Your task to perform on an android device: open app "Google Chrome" (install if not already installed) Image 0: 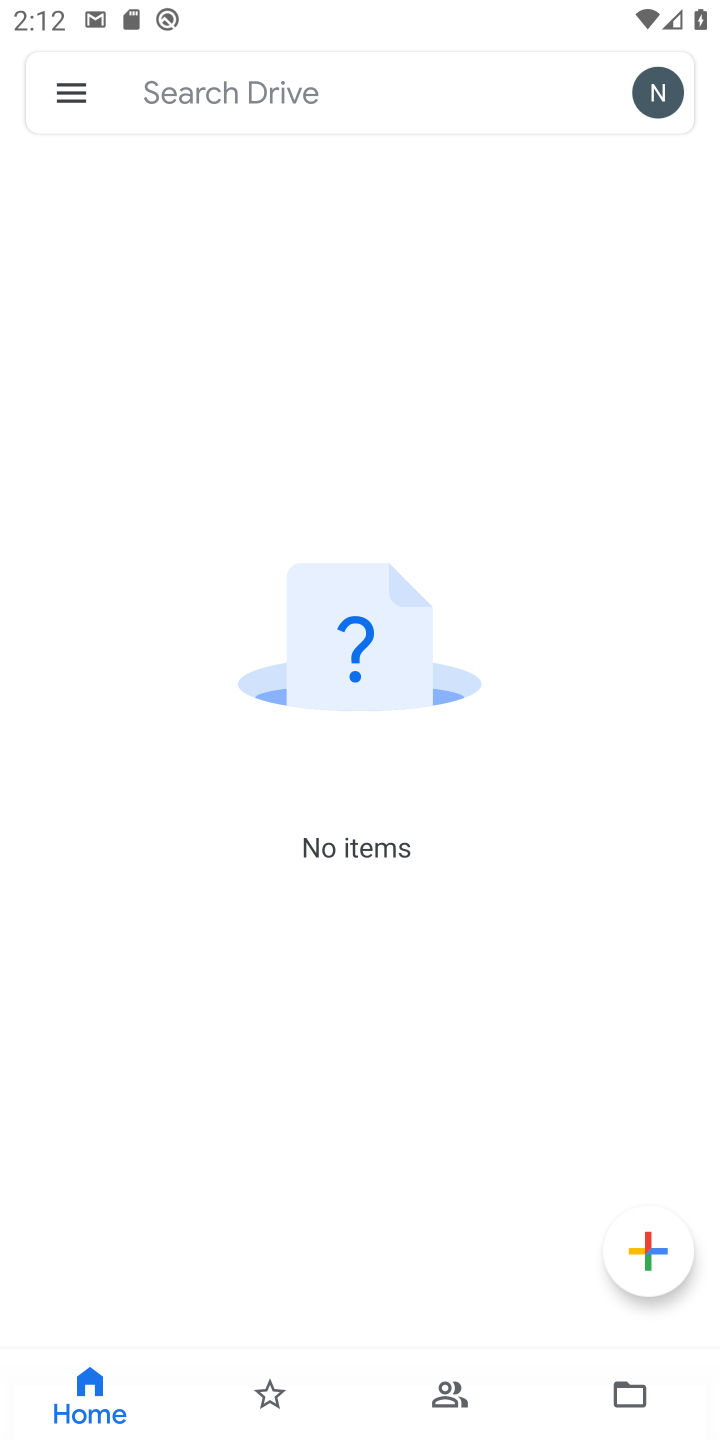
Step 0: press back button
Your task to perform on an android device: open app "Google Chrome" (install if not already installed) Image 1: 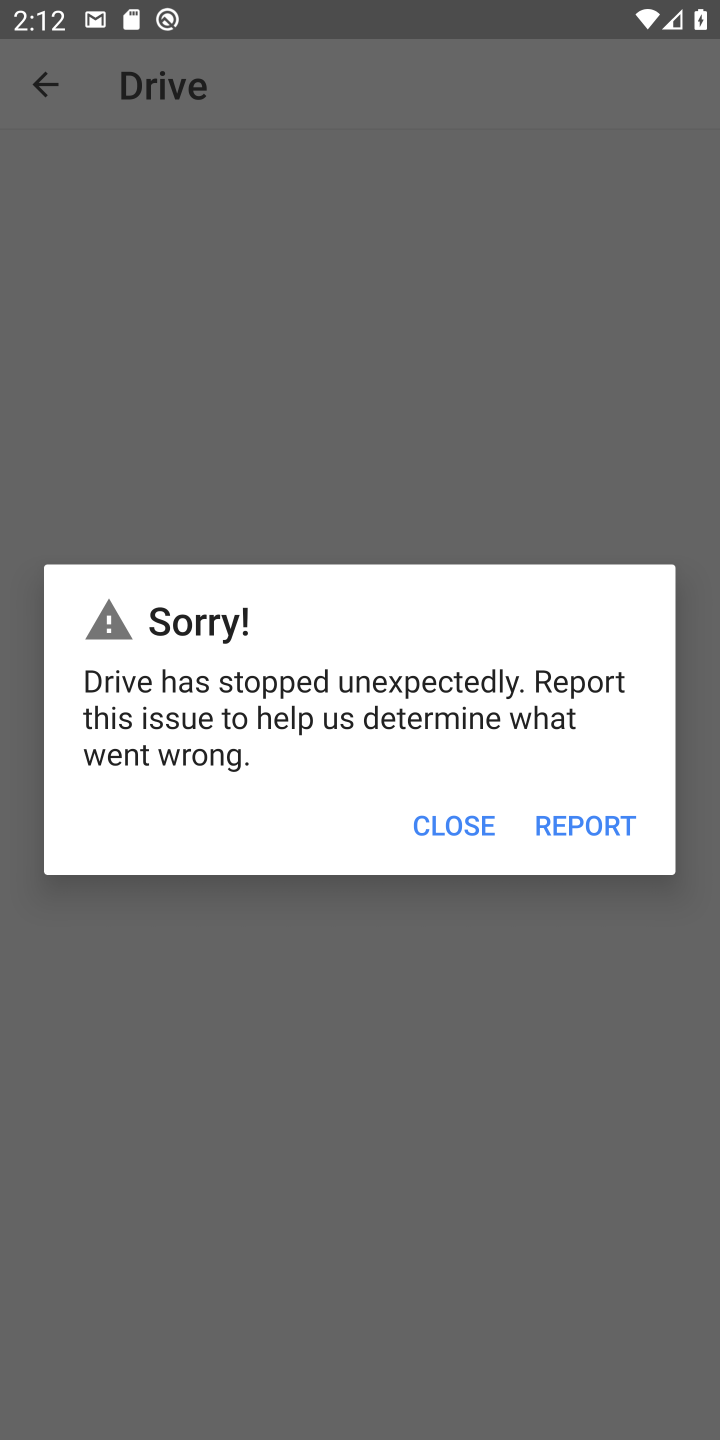
Step 1: press home button
Your task to perform on an android device: open app "Google Chrome" (install if not already installed) Image 2: 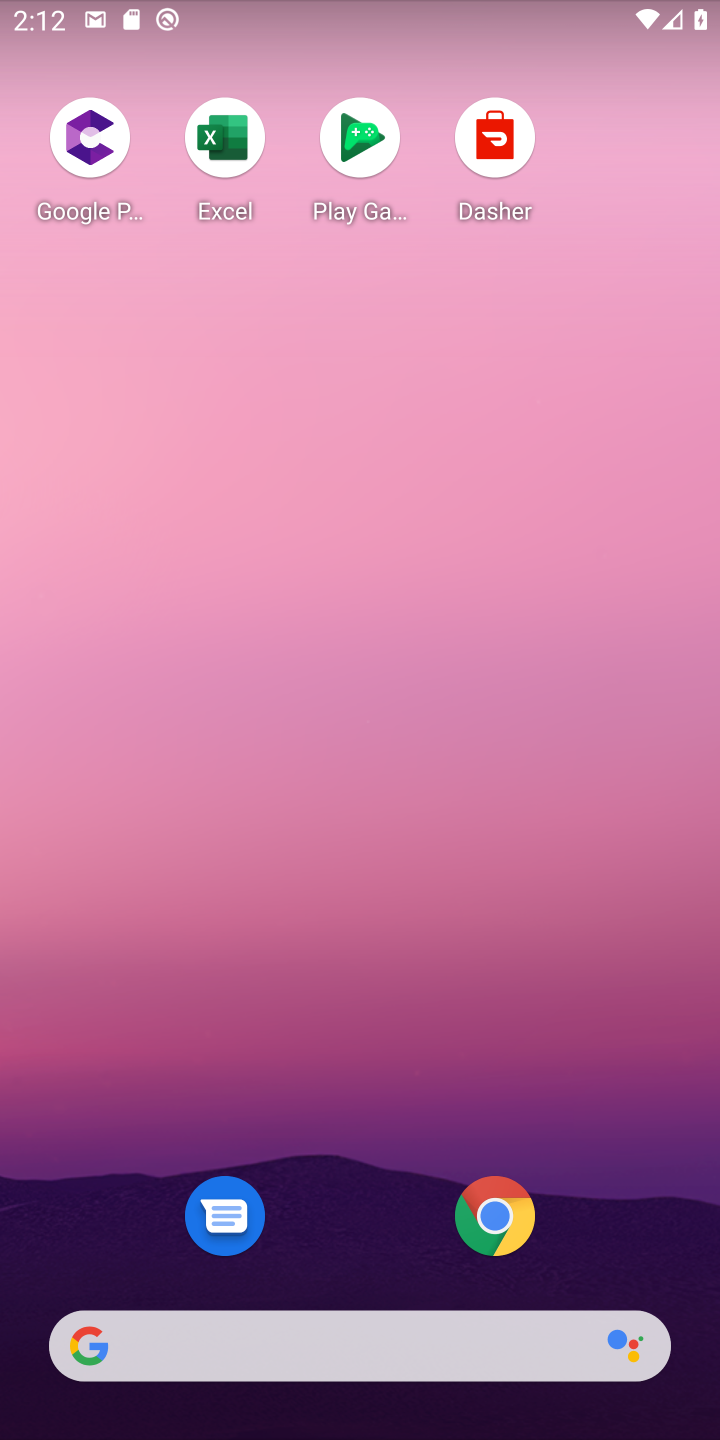
Step 2: click (487, 1222)
Your task to perform on an android device: open app "Google Chrome" (install if not already installed) Image 3: 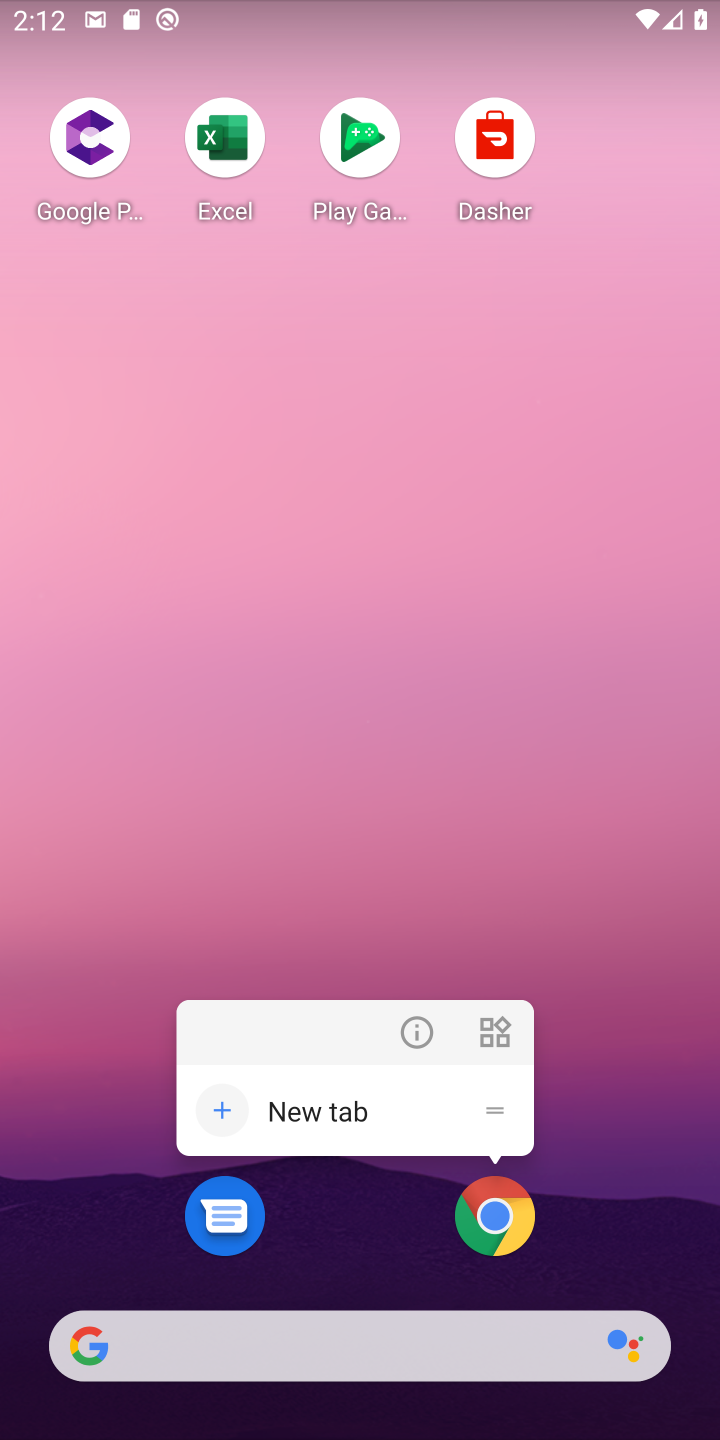
Step 3: click (494, 1225)
Your task to perform on an android device: open app "Google Chrome" (install if not already installed) Image 4: 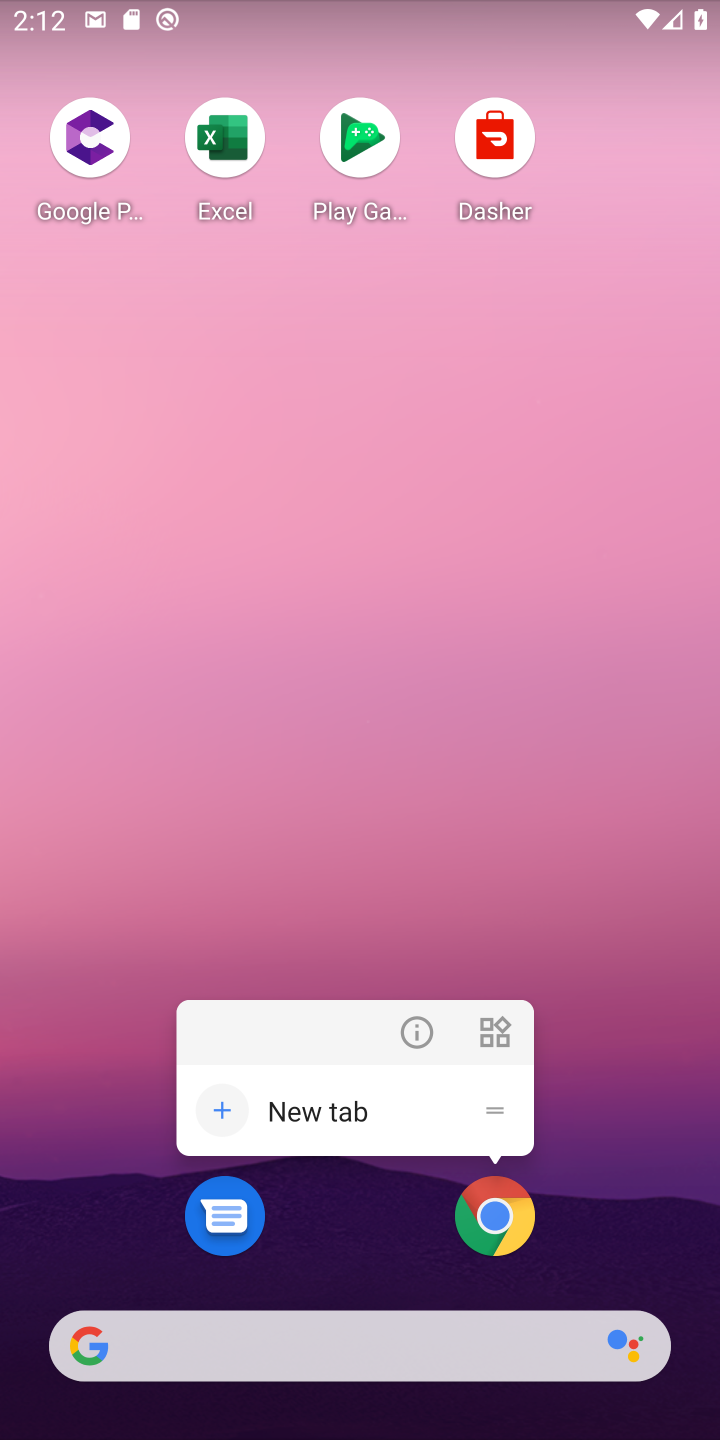
Step 4: click (482, 1251)
Your task to perform on an android device: open app "Google Chrome" (install if not already installed) Image 5: 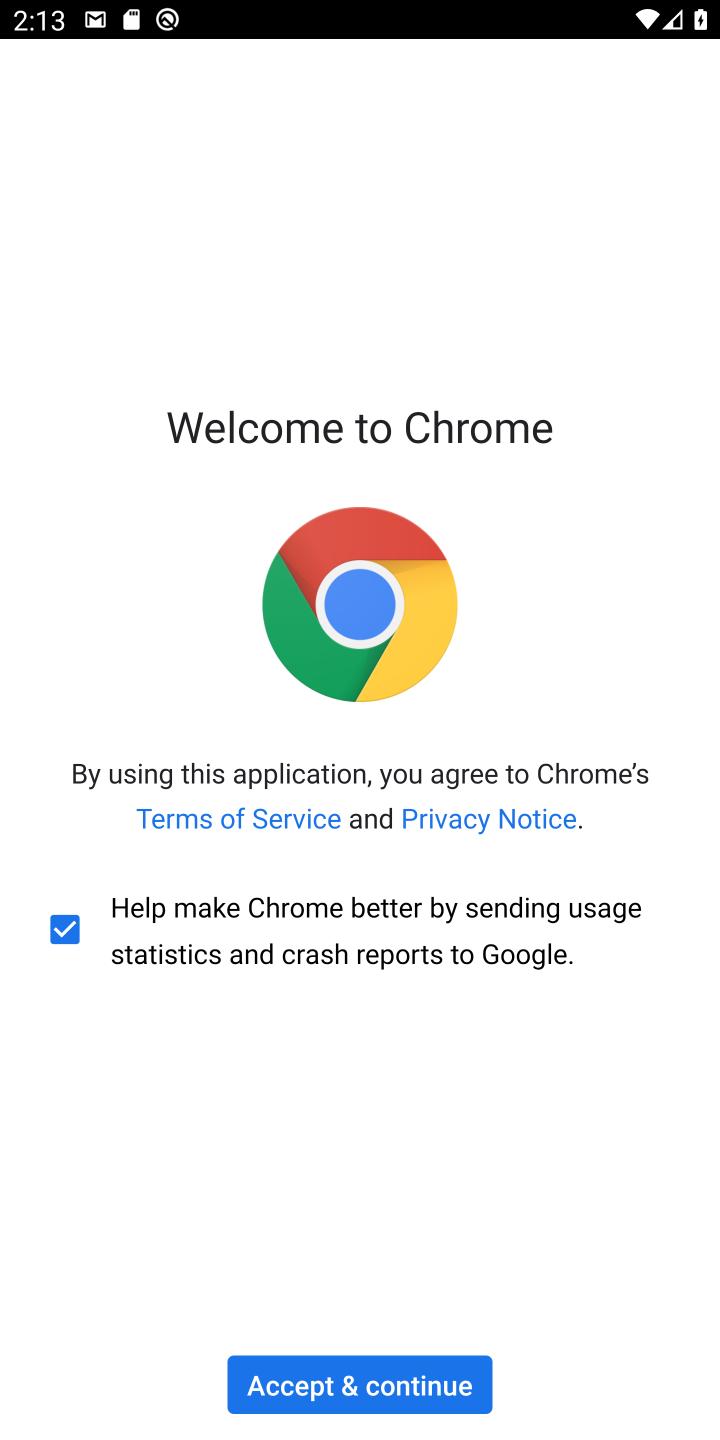
Step 5: click (341, 1381)
Your task to perform on an android device: open app "Google Chrome" (install if not already installed) Image 6: 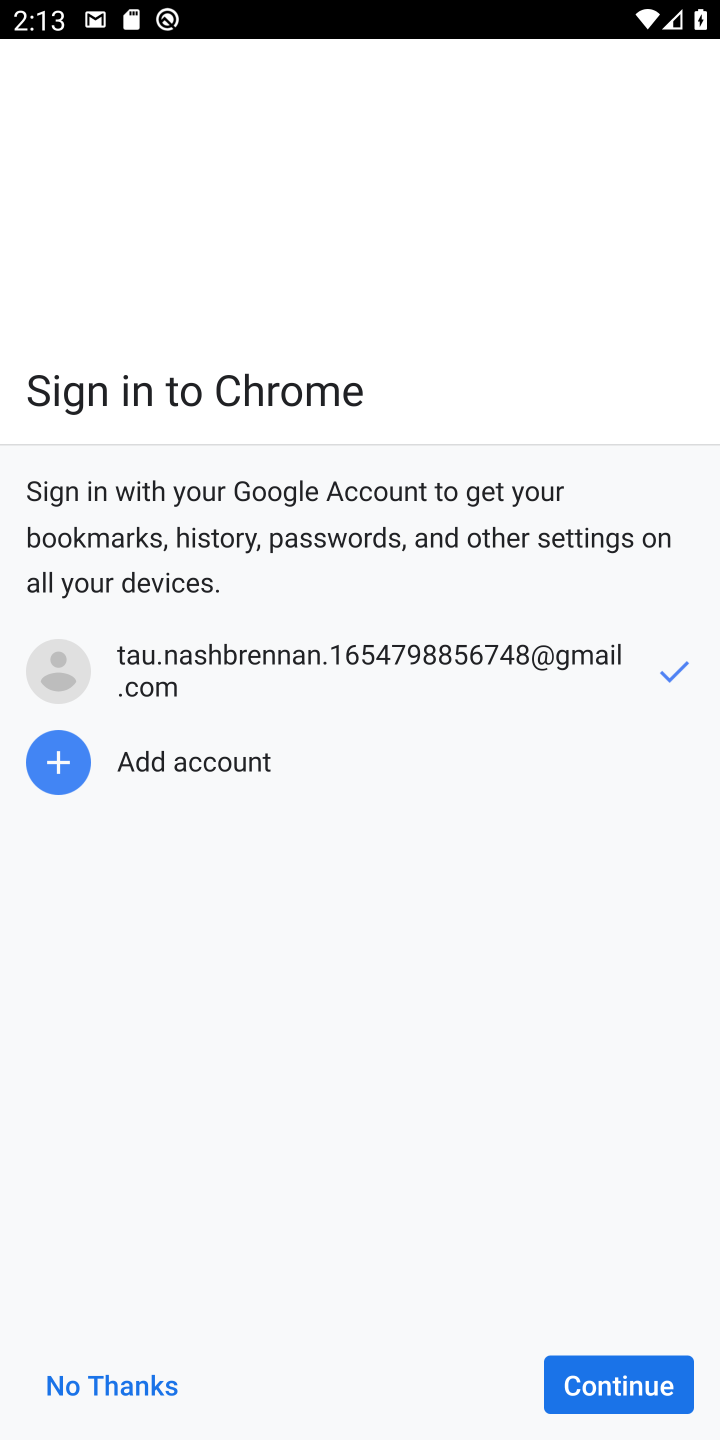
Step 6: click (562, 1379)
Your task to perform on an android device: open app "Google Chrome" (install if not already installed) Image 7: 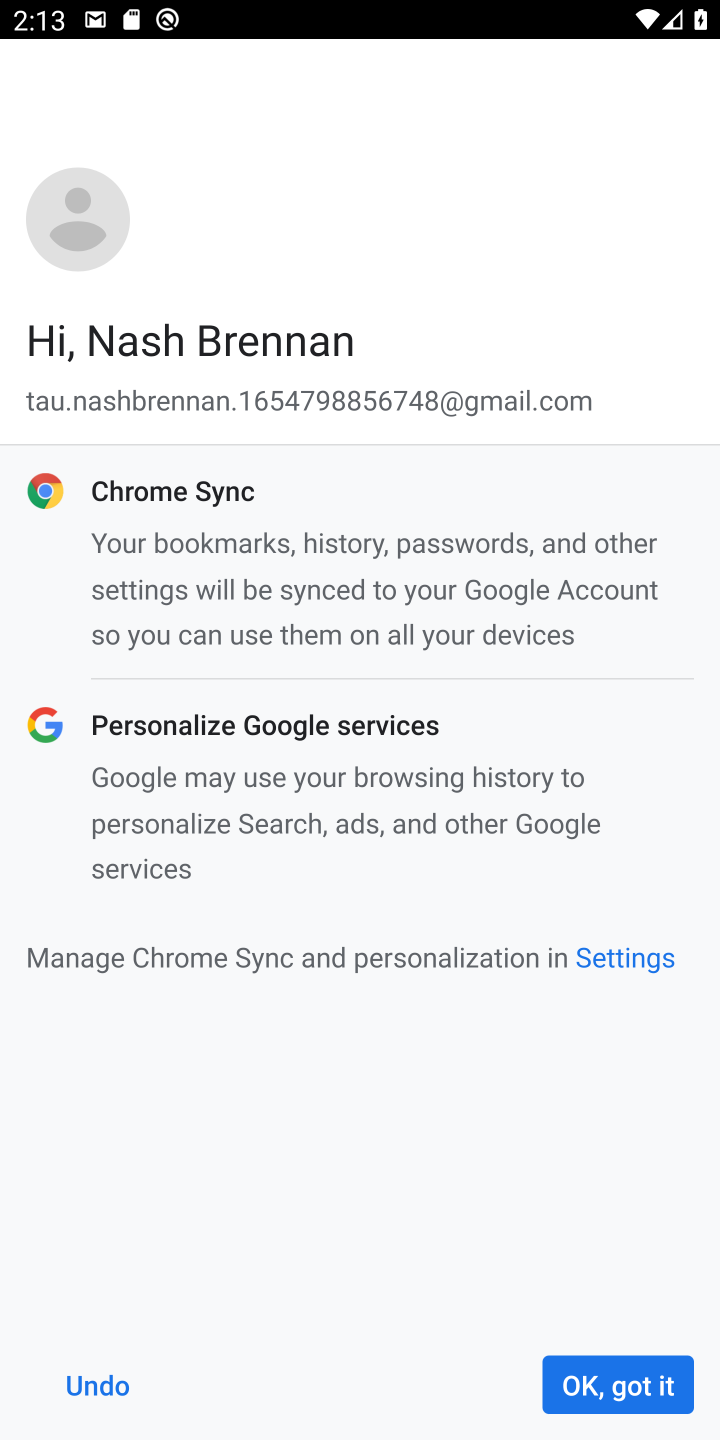
Step 7: click (570, 1385)
Your task to perform on an android device: open app "Google Chrome" (install if not already installed) Image 8: 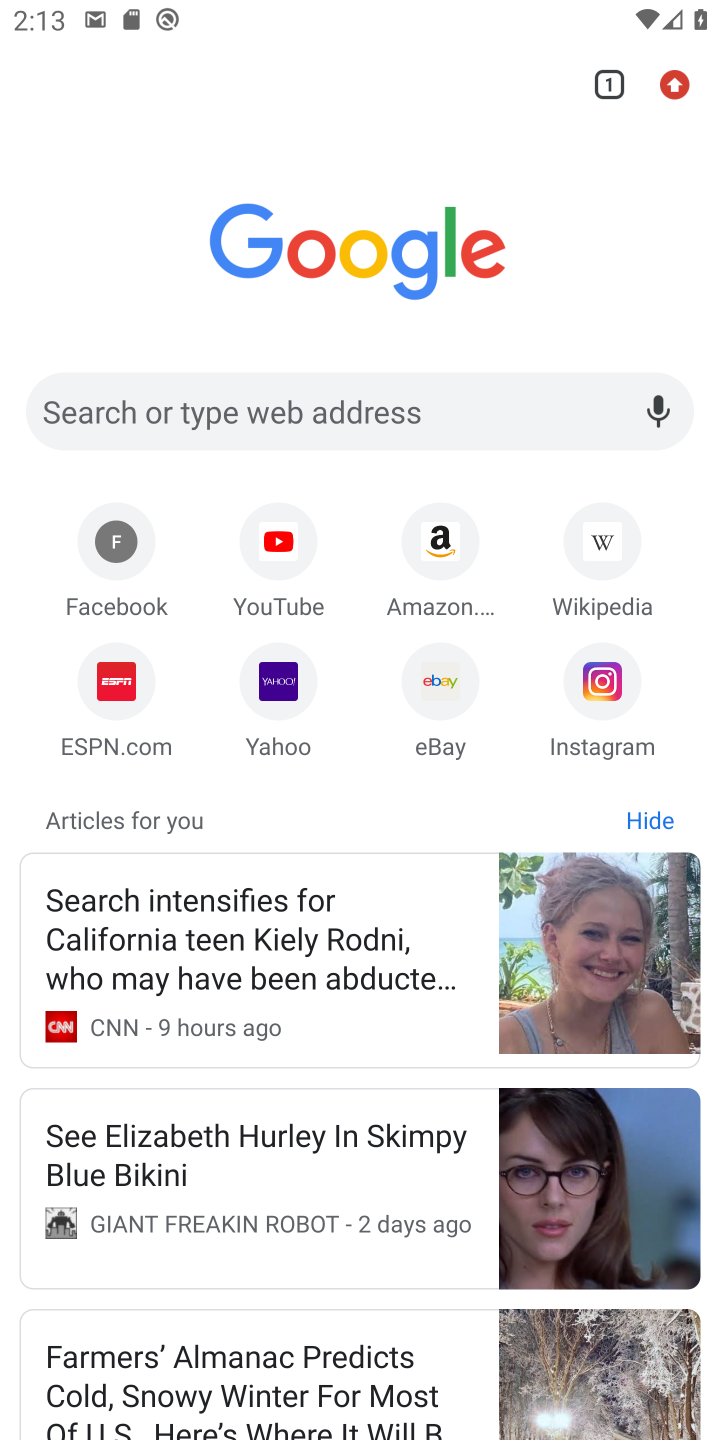
Step 8: task complete